Your task to perform on an android device: Search for logitech g pro on walmart.com, select the first entry, and add it to the cart. Image 0: 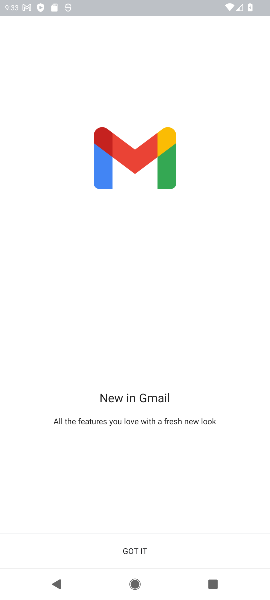
Step 0: press home button
Your task to perform on an android device: Search for logitech g pro on walmart.com, select the first entry, and add it to the cart. Image 1: 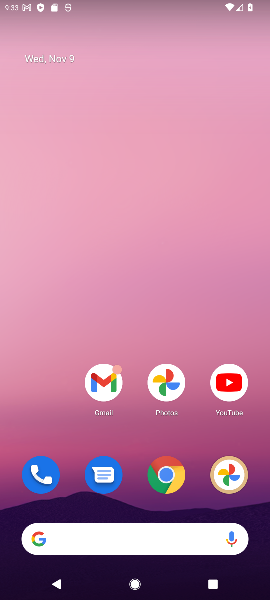
Step 1: click (144, 459)
Your task to perform on an android device: Search for logitech g pro on walmart.com, select the first entry, and add it to the cart. Image 2: 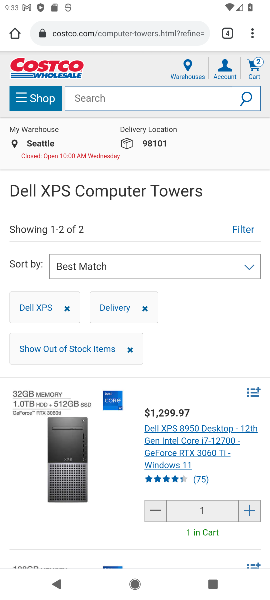
Step 2: click (227, 24)
Your task to perform on an android device: Search for logitech g pro on walmart.com, select the first entry, and add it to the cart. Image 3: 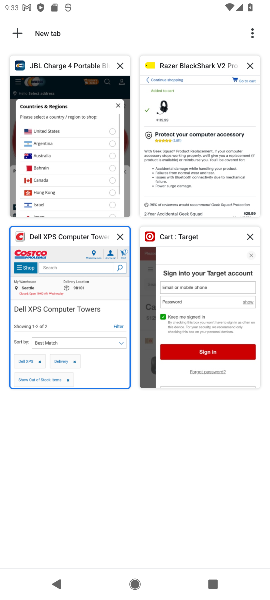
Step 3: click (16, 30)
Your task to perform on an android device: Search for logitech g pro on walmart.com, select the first entry, and add it to the cart. Image 4: 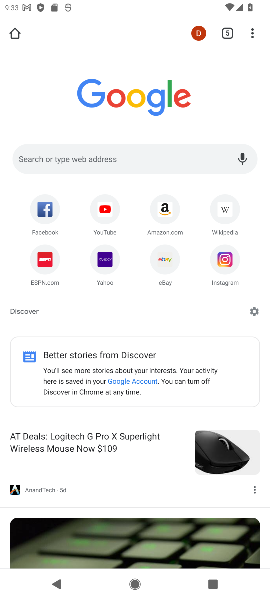
Step 4: click (95, 160)
Your task to perform on an android device: Search for logitech g pro on walmart.com, select the first entry, and add it to the cart. Image 5: 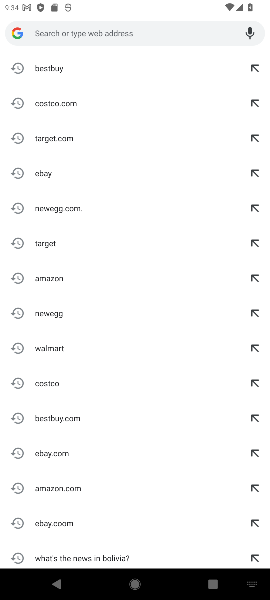
Step 5: click (48, 349)
Your task to perform on an android device: Search for logitech g pro on walmart.com, select the first entry, and add it to the cart. Image 6: 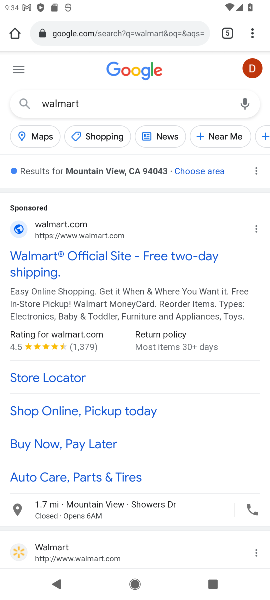
Step 6: drag from (148, 458) to (194, 221)
Your task to perform on an android device: Search for logitech g pro on walmart.com, select the first entry, and add it to the cart. Image 7: 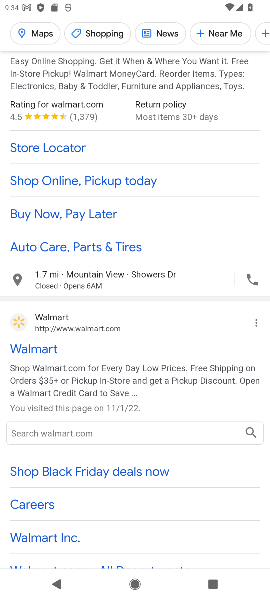
Step 7: click (84, 433)
Your task to perform on an android device: Search for logitech g pro on walmart.com, select the first entry, and add it to the cart. Image 8: 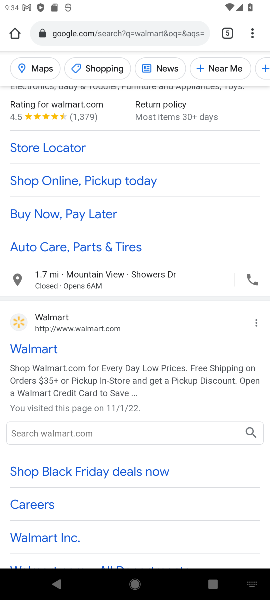
Step 8: type "logitech g pro"
Your task to perform on an android device: Search for logitech g pro on walmart.com, select the first entry, and add it to the cart. Image 9: 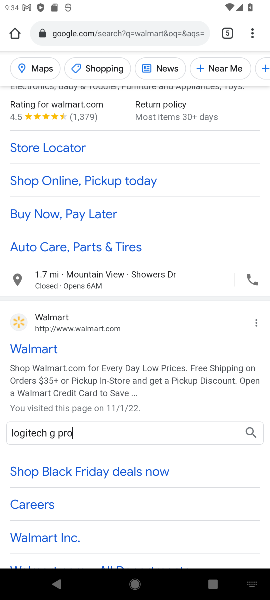
Step 9: click (251, 427)
Your task to perform on an android device: Search for logitech g pro on walmart.com, select the first entry, and add it to the cart. Image 10: 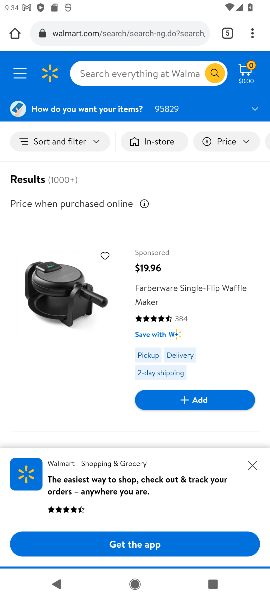
Step 10: click (252, 467)
Your task to perform on an android device: Search for logitech g pro on walmart.com, select the first entry, and add it to the cart. Image 11: 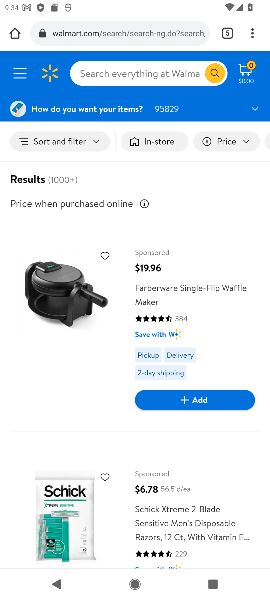
Step 11: drag from (183, 440) to (242, 111)
Your task to perform on an android device: Search for logitech g pro on walmart.com, select the first entry, and add it to the cart. Image 12: 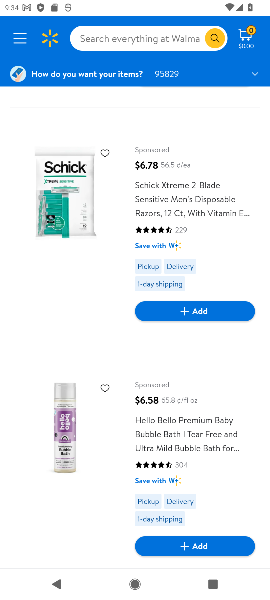
Step 12: drag from (208, 384) to (258, 223)
Your task to perform on an android device: Search for logitech g pro on walmart.com, select the first entry, and add it to the cart. Image 13: 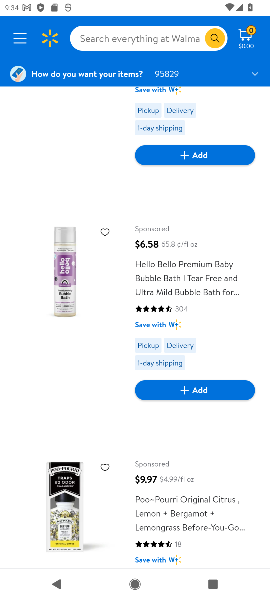
Step 13: drag from (205, 134) to (121, 555)
Your task to perform on an android device: Search for logitech g pro on walmart.com, select the first entry, and add it to the cart. Image 14: 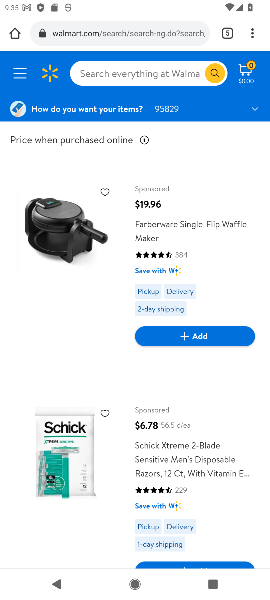
Step 14: click (144, 76)
Your task to perform on an android device: Search for logitech g pro on walmart.com, select the first entry, and add it to the cart. Image 15: 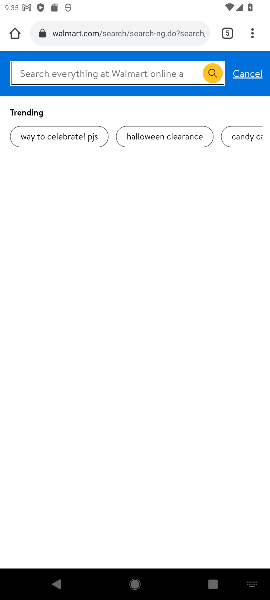
Step 15: type "logitech g pro"
Your task to perform on an android device: Search for logitech g pro on walmart.com, select the first entry, and add it to the cart. Image 16: 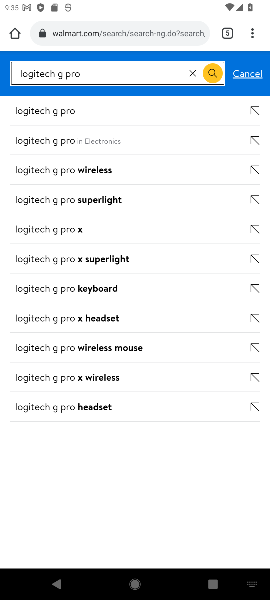
Step 16: click (36, 142)
Your task to perform on an android device: Search for logitech g pro on walmart.com, select the first entry, and add it to the cart. Image 17: 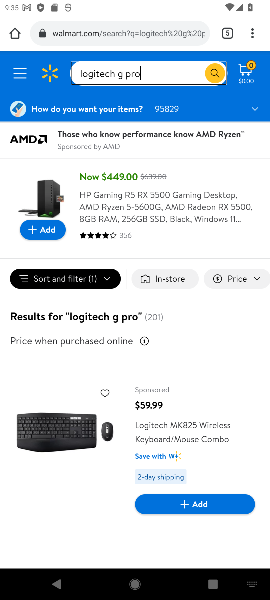
Step 17: click (225, 500)
Your task to perform on an android device: Search for logitech g pro on walmart.com, select the first entry, and add it to the cart. Image 18: 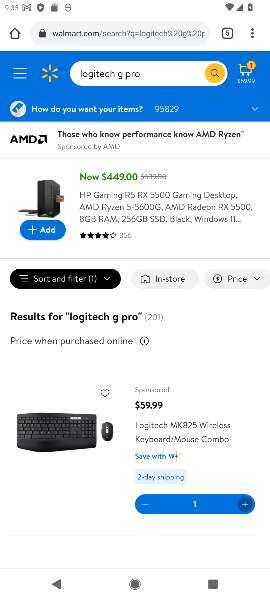
Step 18: task complete